Your task to perform on an android device: turn on javascript in the chrome app Image 0: 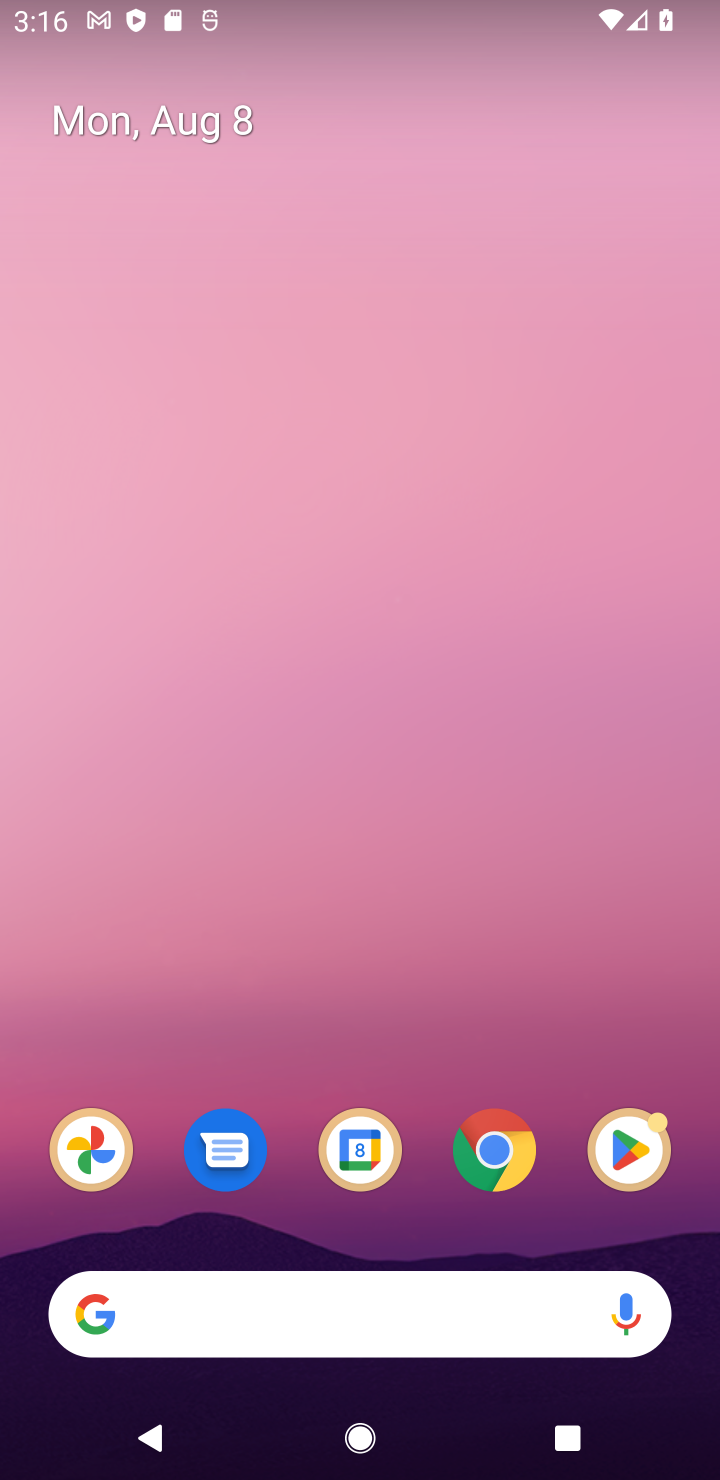
Step 0: click (532, 1173)
Your task to perform on an android device: turn on javascript in the chrome app Image 1: 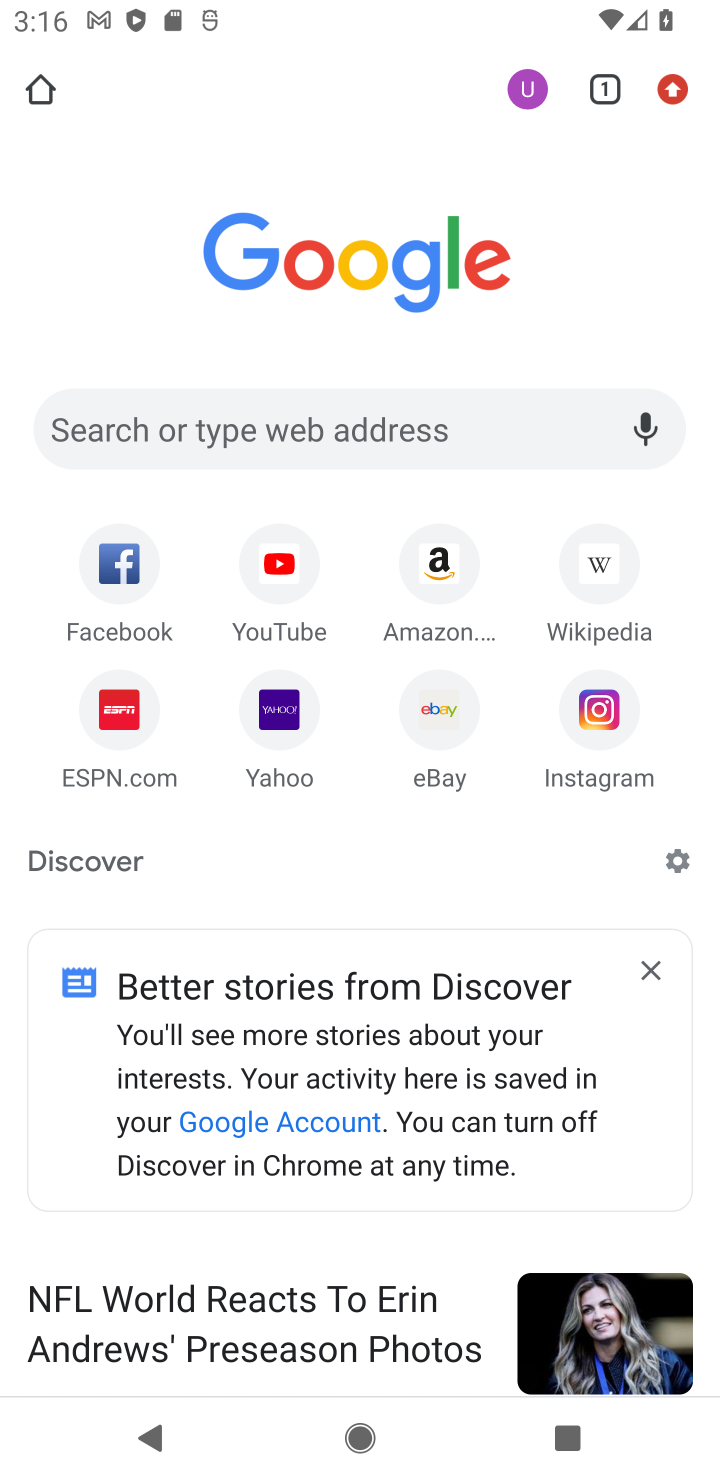
Step 1: task complete